Your task to perform on an android device: turn off notifications settings in the gmail app Image 0: 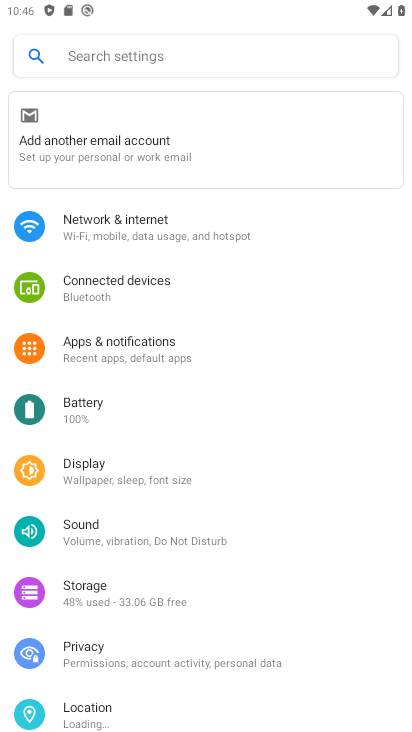
Step 0: press home button
Your task to perform on an android device: turn off notifications settings in the gmail app Image 1: 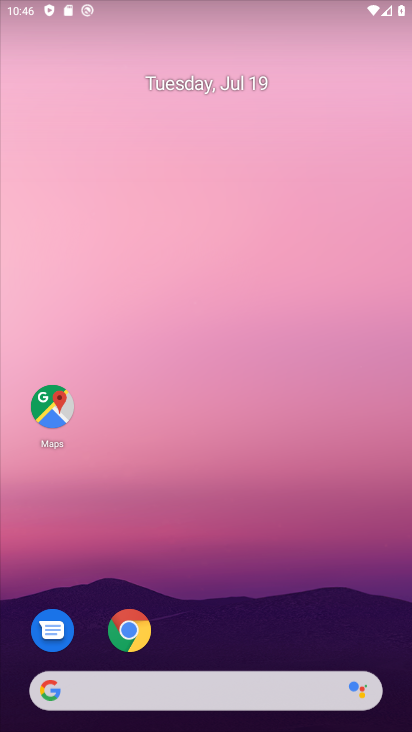
Step 1: drag from (174, 382) to (145, 163)
Your task to perform on an android device: turn off notifications settings in the gmail app Image 2: 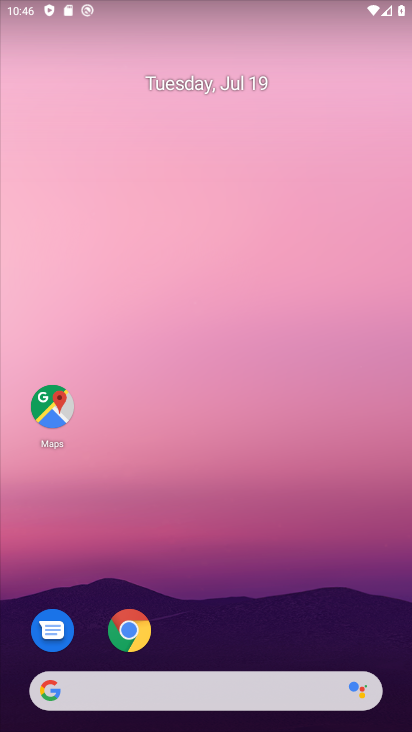
Step 2: drag from (196, 683) to (163, 277)
Your task to perform on an android device: turn off notifications settings in the gmail app Image 3: 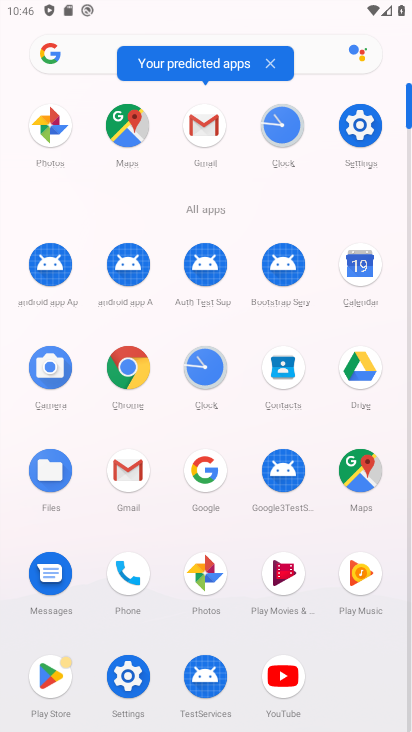
Step 3: click (108, 460)
Your task to perform on an android device: turn off notifications settings in the gmail app Image 4: 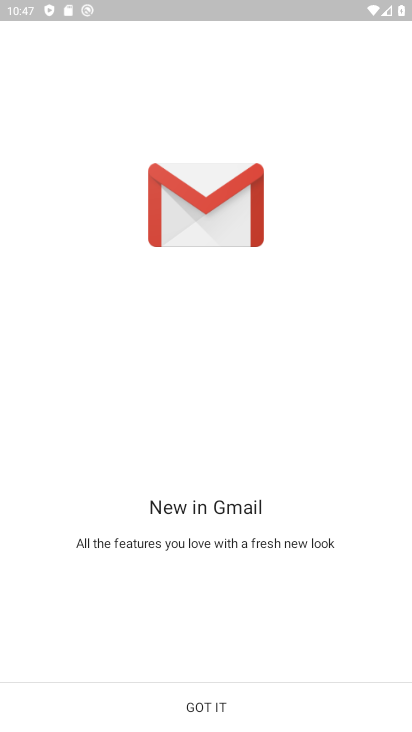
Step 4: click (223, 717)
Your task to perform on an android device: turn off notifications settings in the gmail app Image 5: 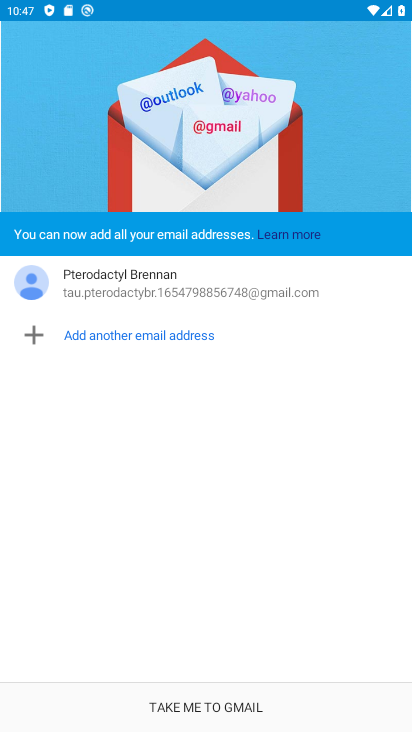
Step 5: click (186, 713)
Your task to perform on an android device: turn off notifications settings in the gmail app Image 6: 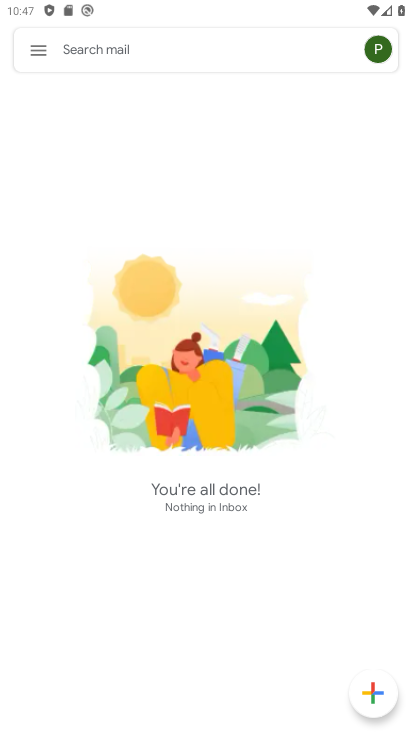
Step 6: click (41, 42)
Your task to perform on an android device: turn off notifications settings in the gmail app Image 7: 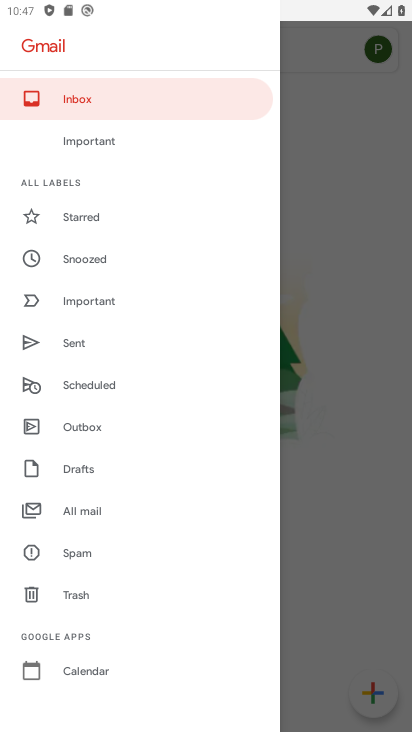
Step 7: drag from (98, 620) to (72, 202)
Your task to perform on an android device: turn off notifications settings in the gmail app Image 8: 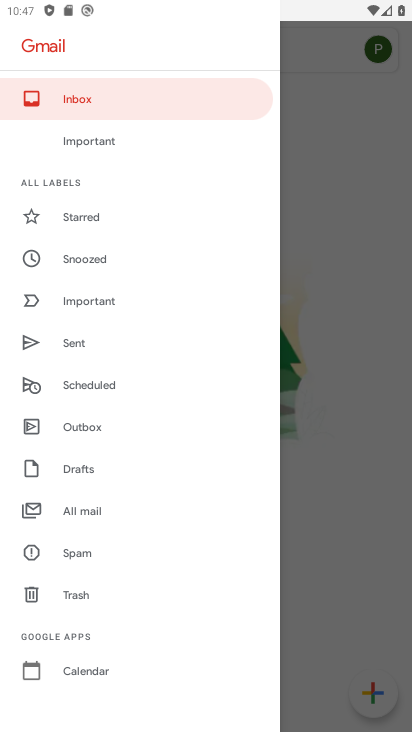
Step 8: drag from (63, 602) to (29, 43)
Your task to perform on an android device: turn off notifications settings in the gmail app Image 9: 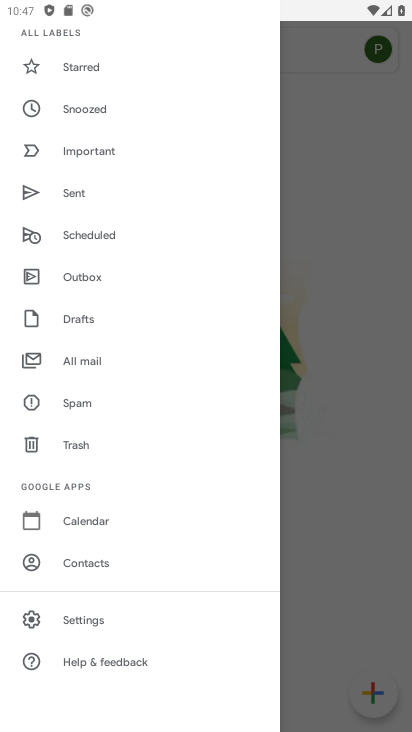
Step 9: click (73, 615)
Your task to perform on an android device: turn off notifications settings in the gmail app Image 10: 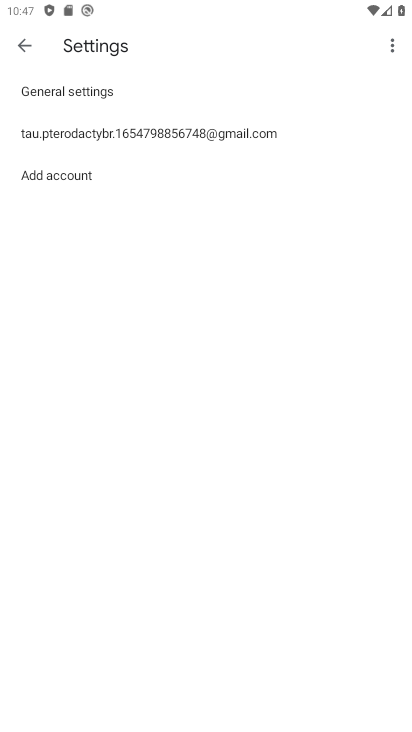
Step 10: click (133, 128)
Your task to perform on an android device: turn off notifications settings in the gmail app Image 11: 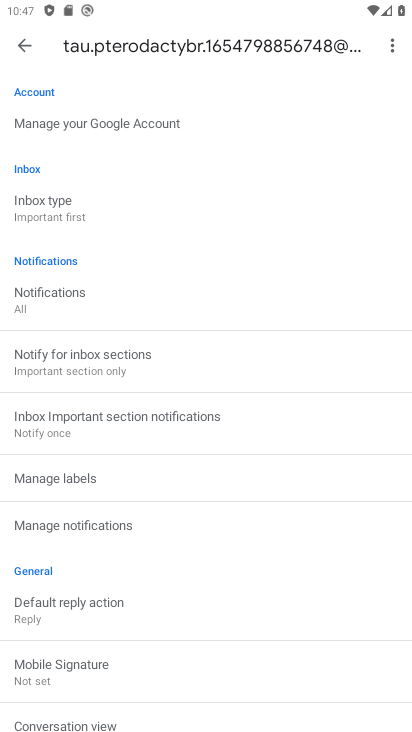
Step 11: click (79, 531)
Your task to perform on an android device: turn off notifications settings in the gmail app Image 12: 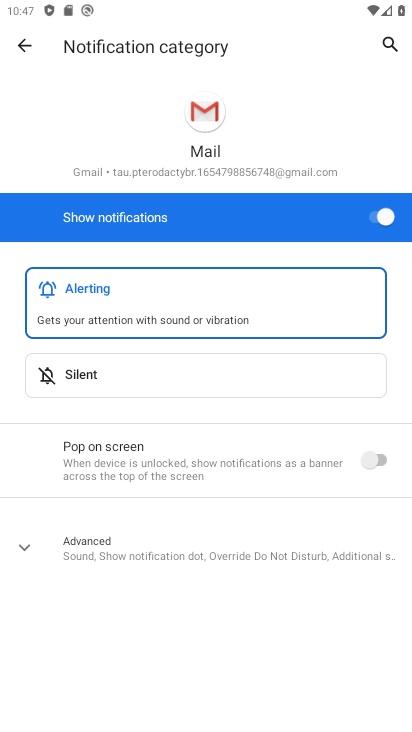
Step 12: click (375, 221)
Your task to perform on an android device: turn off notifications settings in the gmail app Image 13: 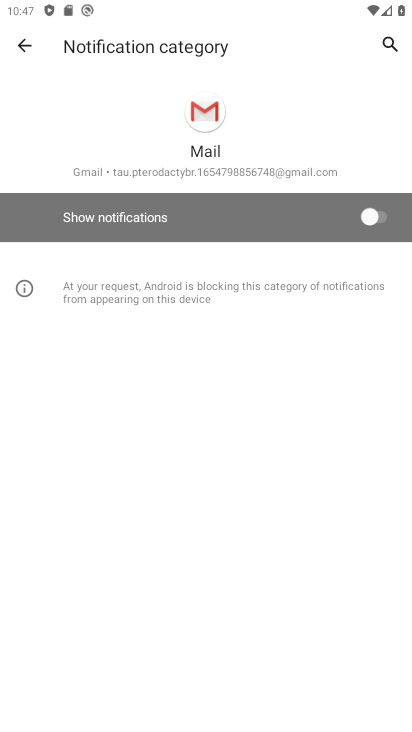
Step 13: task complete